Your task to perform on an android device: turn on data saver in the chrome app Image 0: 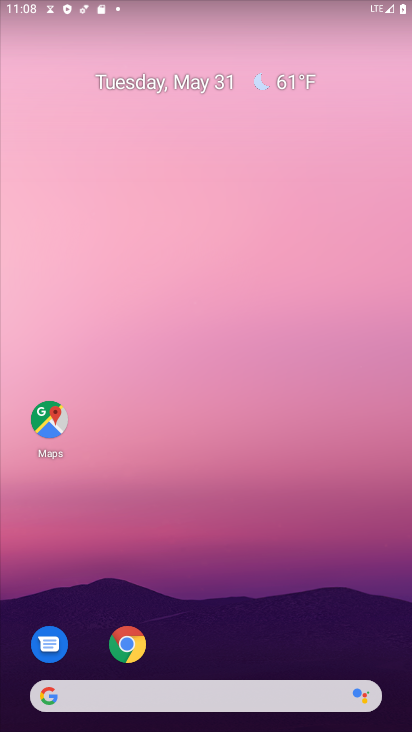
Step 0: click (126, 649)
Your task to perform on an android device: turn on data saver in the chrome app Image 1: 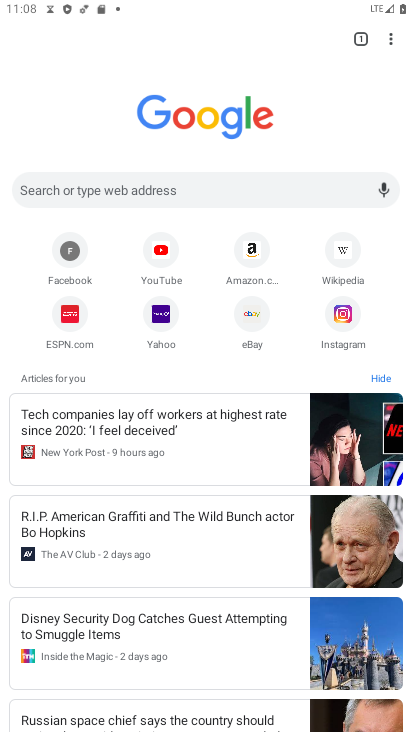
Step 1: drag from (391, 38) to (253, 332)
Your task to perform on an android device: turn on data saver in the chrome app Image 2: 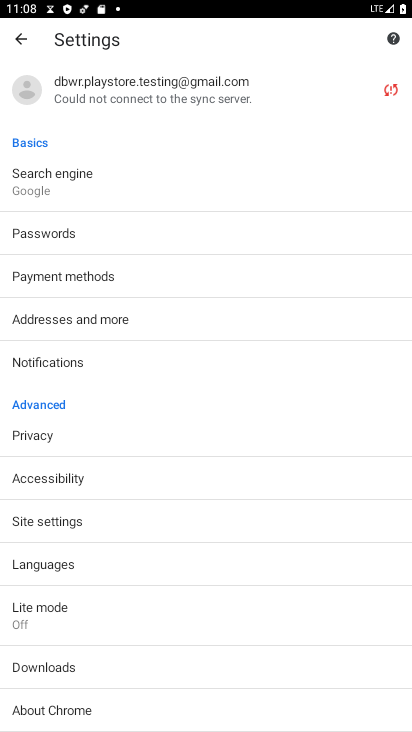
Step 2: click (72, 617)
Your task to perform on an android device: turn on data saver in the chrome app Image 3: 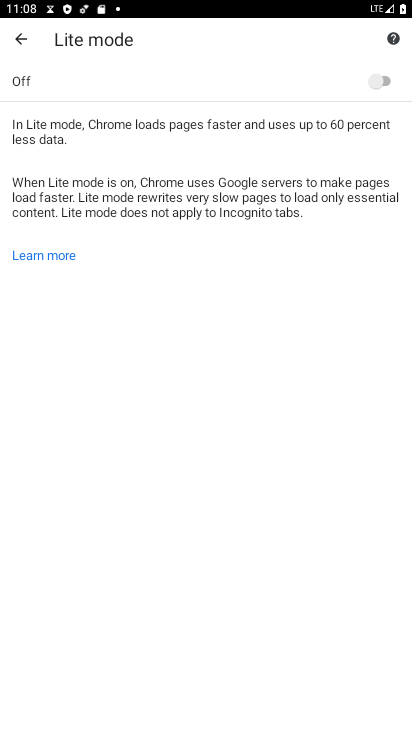
Step 3: click (380, 78)
Your task to perform on an android device: turn on data saver in the chrome app Image 4: 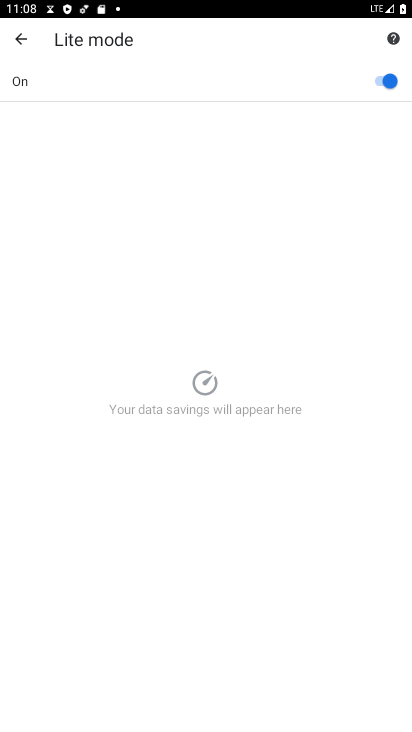
Step 4: task complete